Your task to perform on an android device: choose inbox layout in the gmail app Image 0: 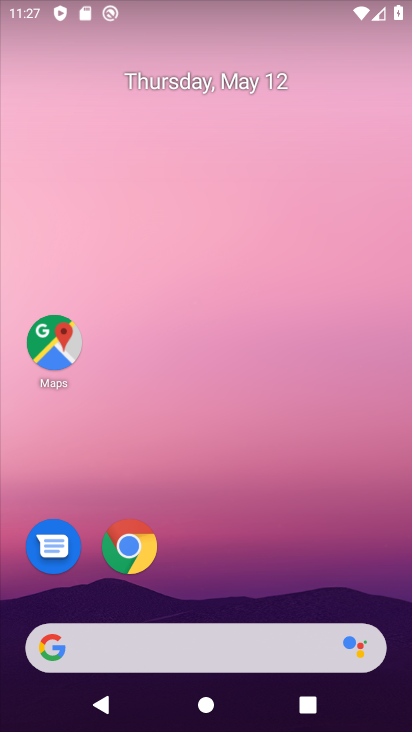
Step 0: drag from (230, 720) to (225, 292)
Your task to perform on an android device: choose inbox layout in the gmail app Image 1: 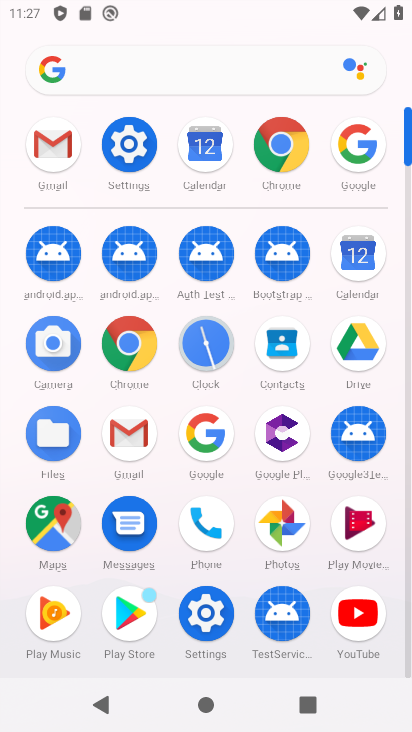
Step 1: click (131, 432)
Your task to perform on an android device: choose inbox layout in the gmail app Image 2: 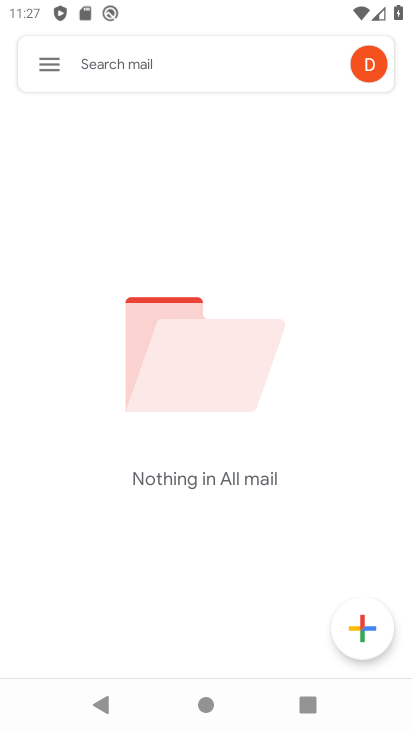
Step 2: click (51, 68)
Your task to perform on an android device: choose inbox layout in the gmail app Image 3: 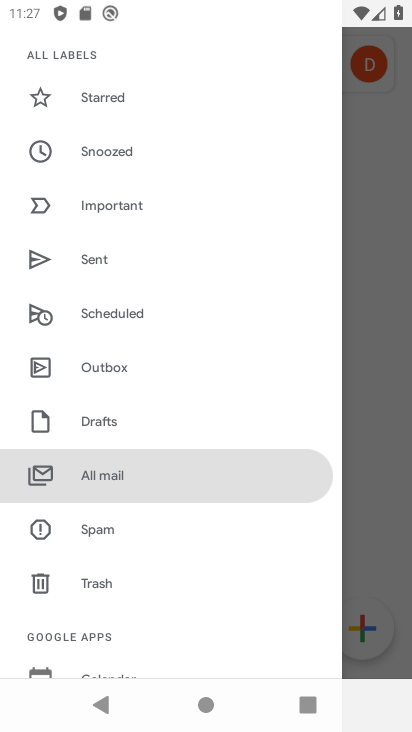
Step 3: drag from (116, 639) to (140, 199)
Your task to perform on an android device: choose inbox layout in the gmail app Image 4: 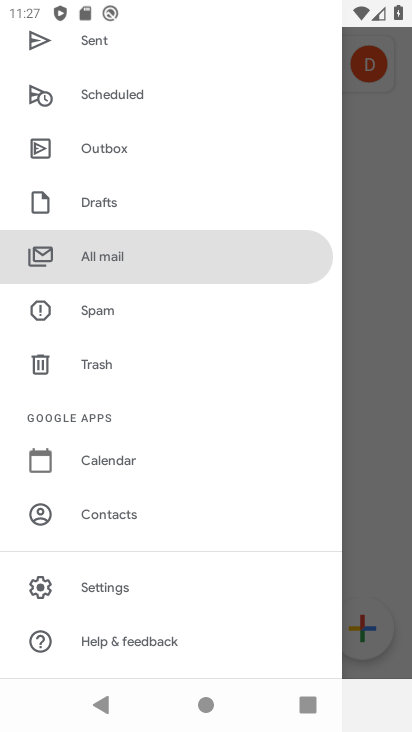
Step 4: click (104, 587)
Your task to perform on an android device: choose inbox layout in the gmail app Image 5: 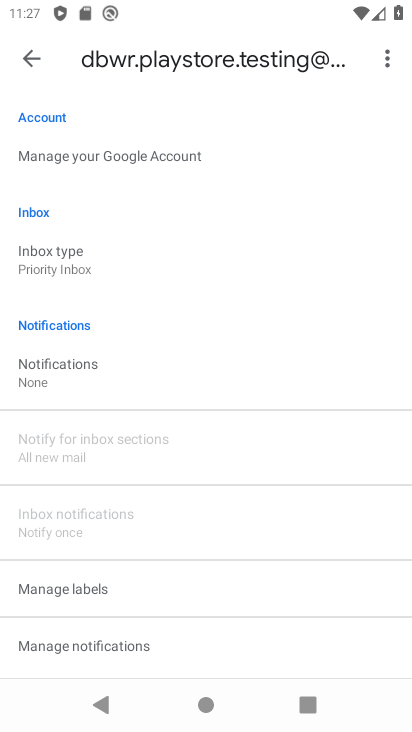
Step 5: click (51, 255)
Your task to perform on an android device: choose inbox layout in the gmail app Image 6: 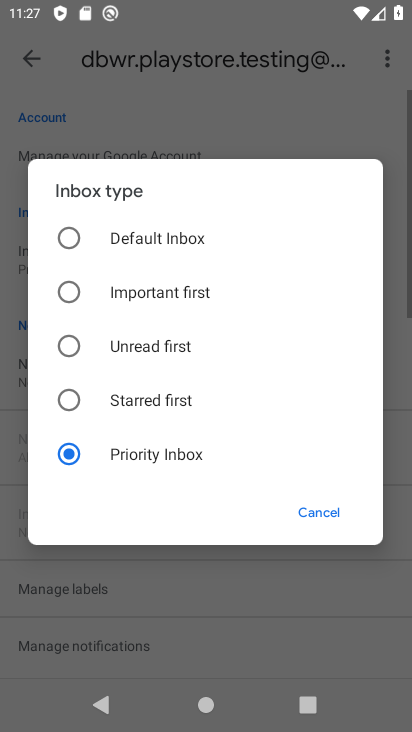
Step 6: click (69, 228)
Your task to perform on an android device: choose inbox layout in the gmail app Image 7: 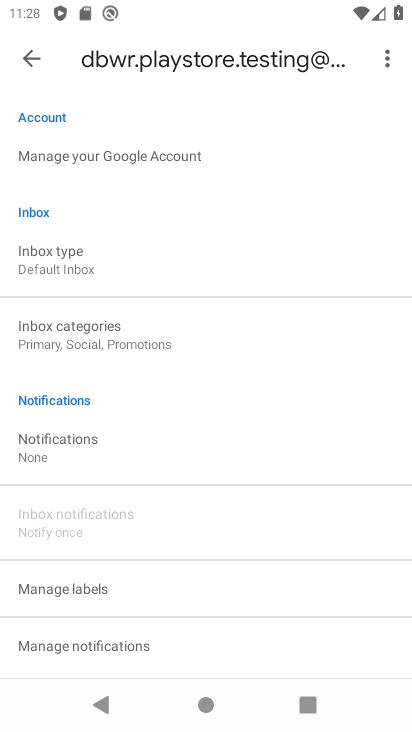
Step 7: task complete